Your task to perform on an android device: empty trash in the gmail app Image 0: 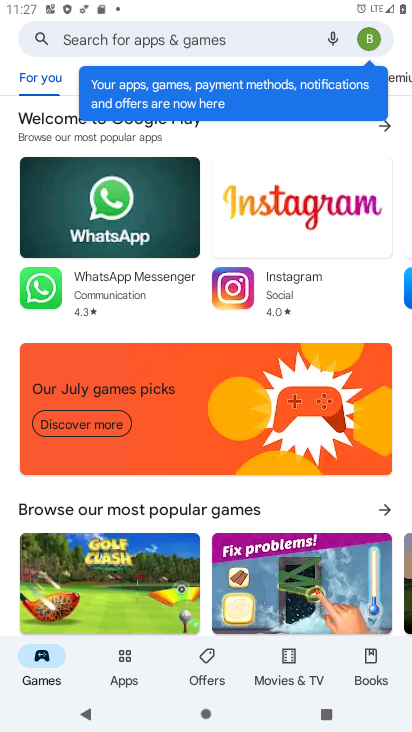
Step 0: press home button
Your task to perform on an android device: empty trash in the gmail app Image 1: 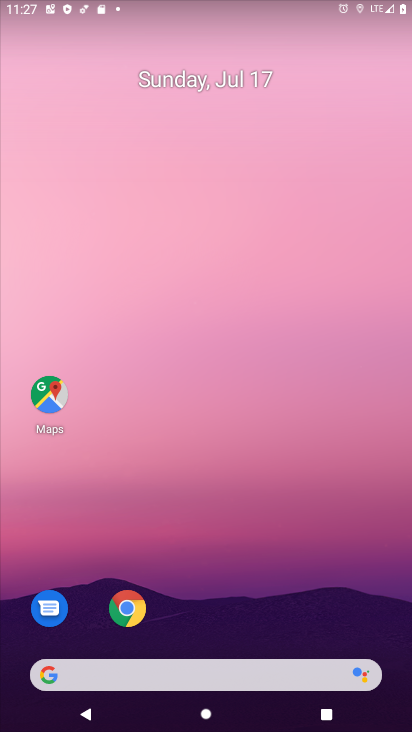
Step 1: drag from (211, 656) to (149, 40)
Your task to perform on an android device: empty trash in the gmail app Image 2: 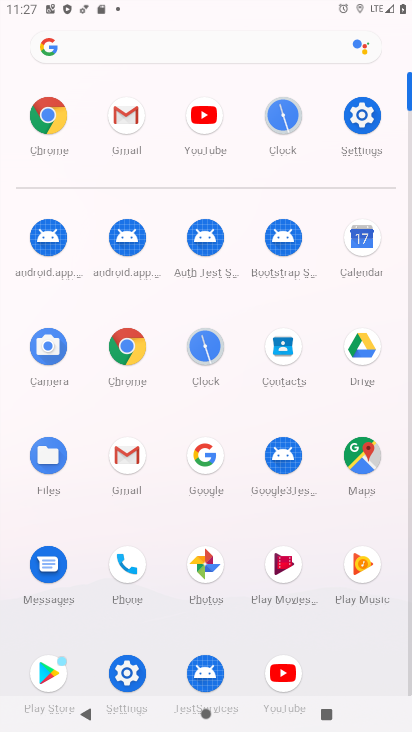
Step 2: click (126, 440)
Your task to perform on an android device: empty trash in the gmail app Image 3: 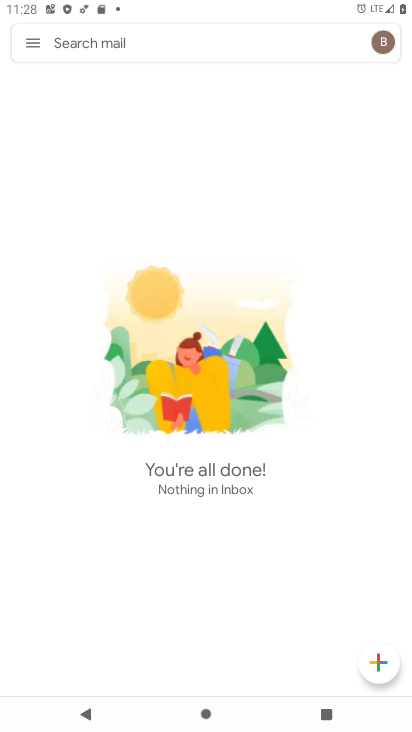
Step 3: task complete